Your task to perform on an android device: Open sound settings Image 0: 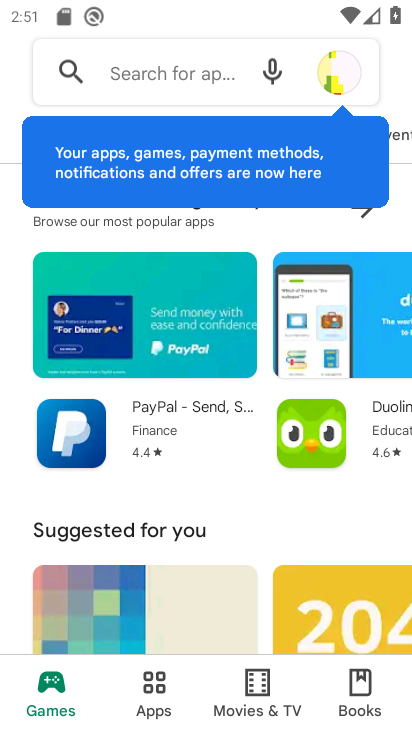
Step 0: press home button
Your task to perform on an android device: Open sound settings Image 1: 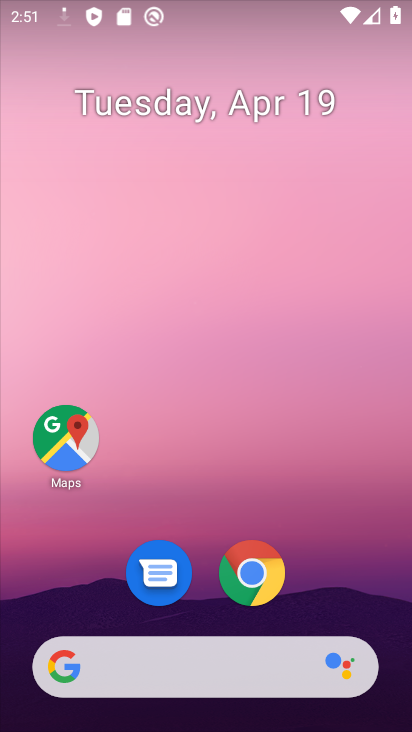
Step 1: drag from (320, 611) to (293, 182)
Your task to perform on an android device: Open sound settings Image 2: 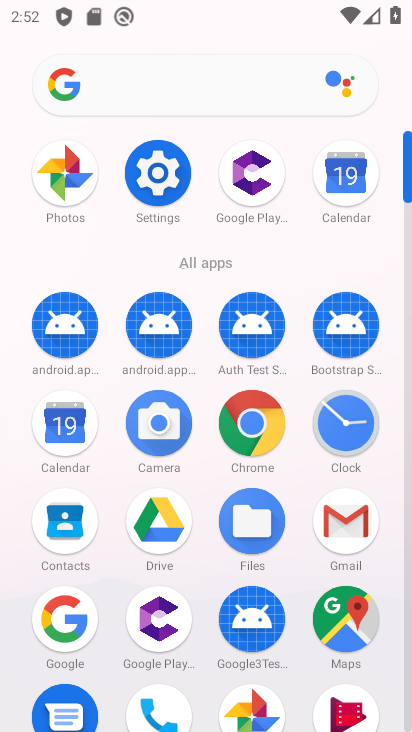
Step 2: click (156, 197)
Your task to perform on an android device: Open sound settings Image 3: 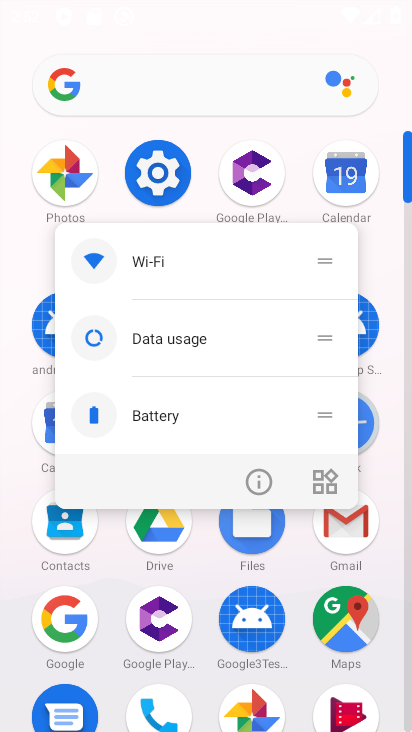
Step 3: click (156, 197)
Your task to perform on an android device: Open sound settings Image 4: 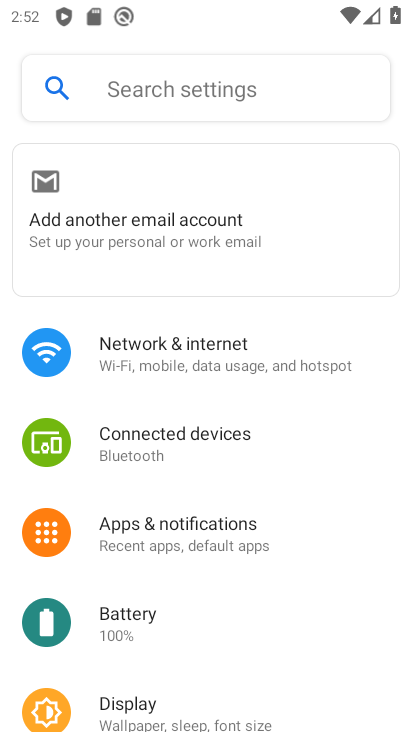
Step 4: drag from (179, 678) to (211, 358)
Your task to perform on an android device: Open sound settings Image 5: 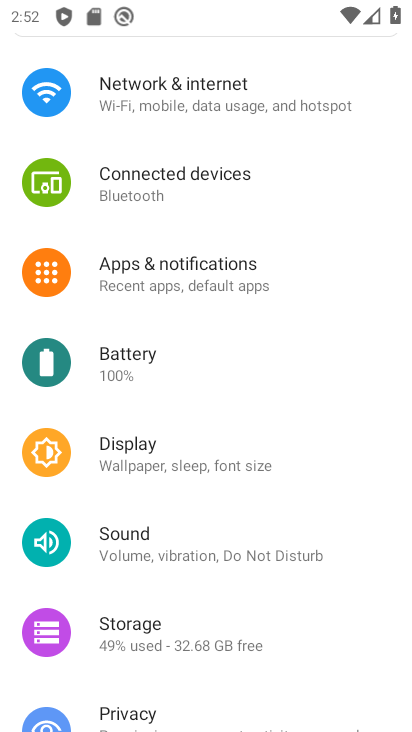
Step 5: click (200, 555)
Your task to perform on an android device: Open sound settings Image 6: 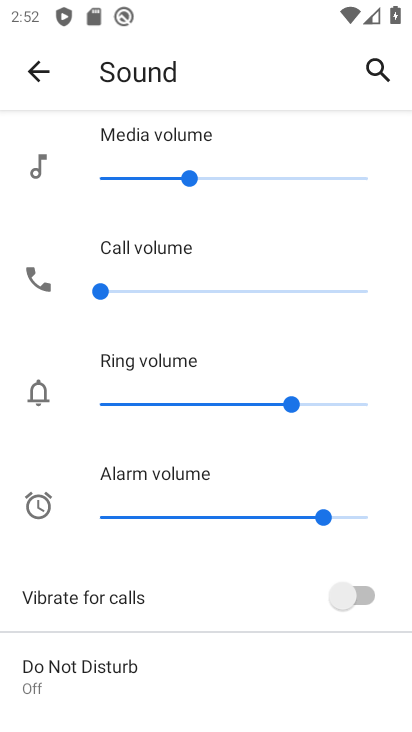
Step 6: task complete